Your task to perform on an android device: When is my next appointment? Image 0: 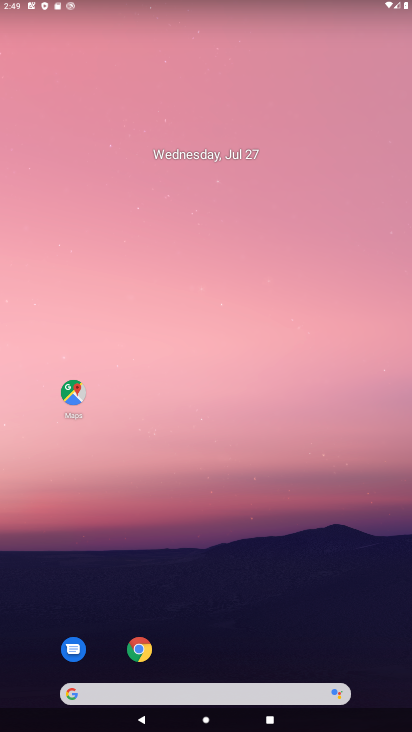
Step 0: drag from (262, 629) to (182, 22)
Your task to perform on an android device: When is my next appointment? Image 1: 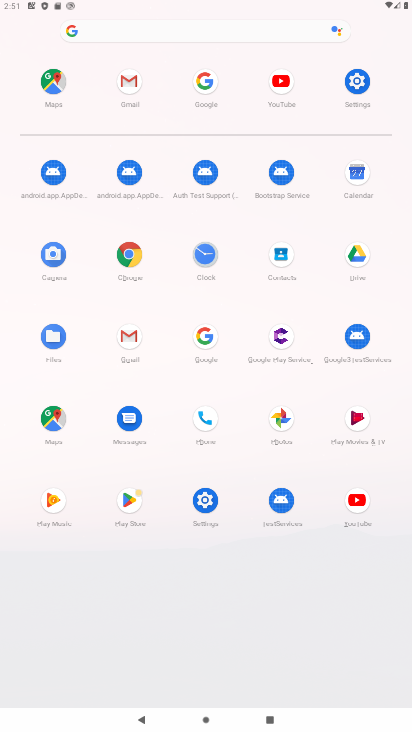
Step 1: click (358, 165)
Your task to perform on an android device: When is my next appointment? Image 2: 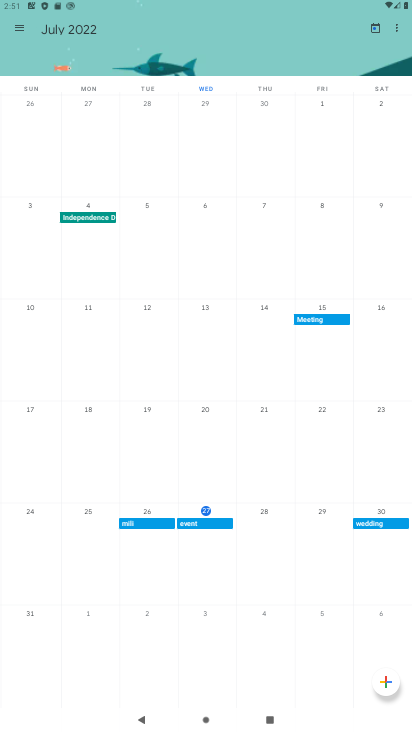
Step 2: task complete